Your task to perform on an android device: change the clock display to show seconds Image 0: 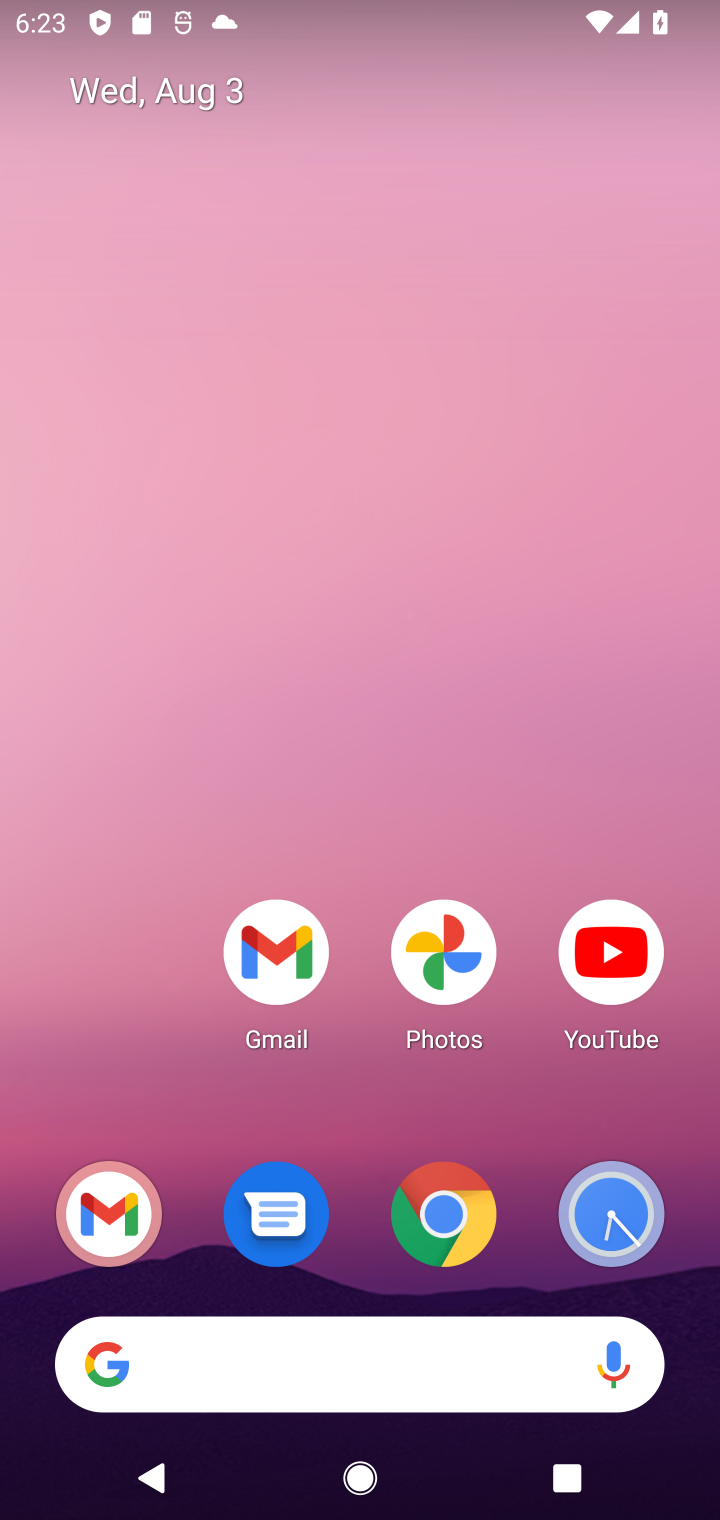
Step 0: drag from (86, 964) to (183, 95)
Your task to perform on an android device: change the clock display to show seconds Image 1: 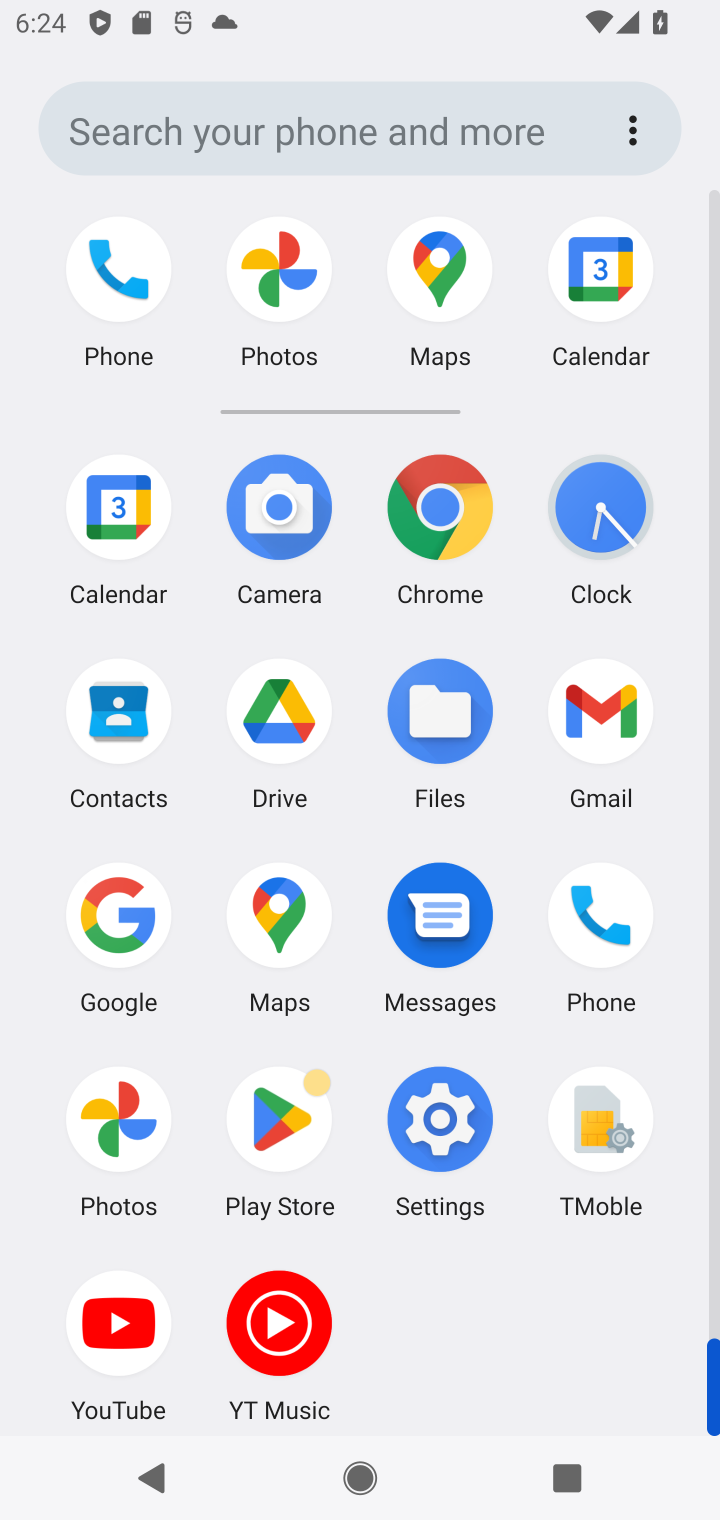
Step 1: click (478, 1128)
Your task to perform on an android device: change the clock display to show seconds Image 2: 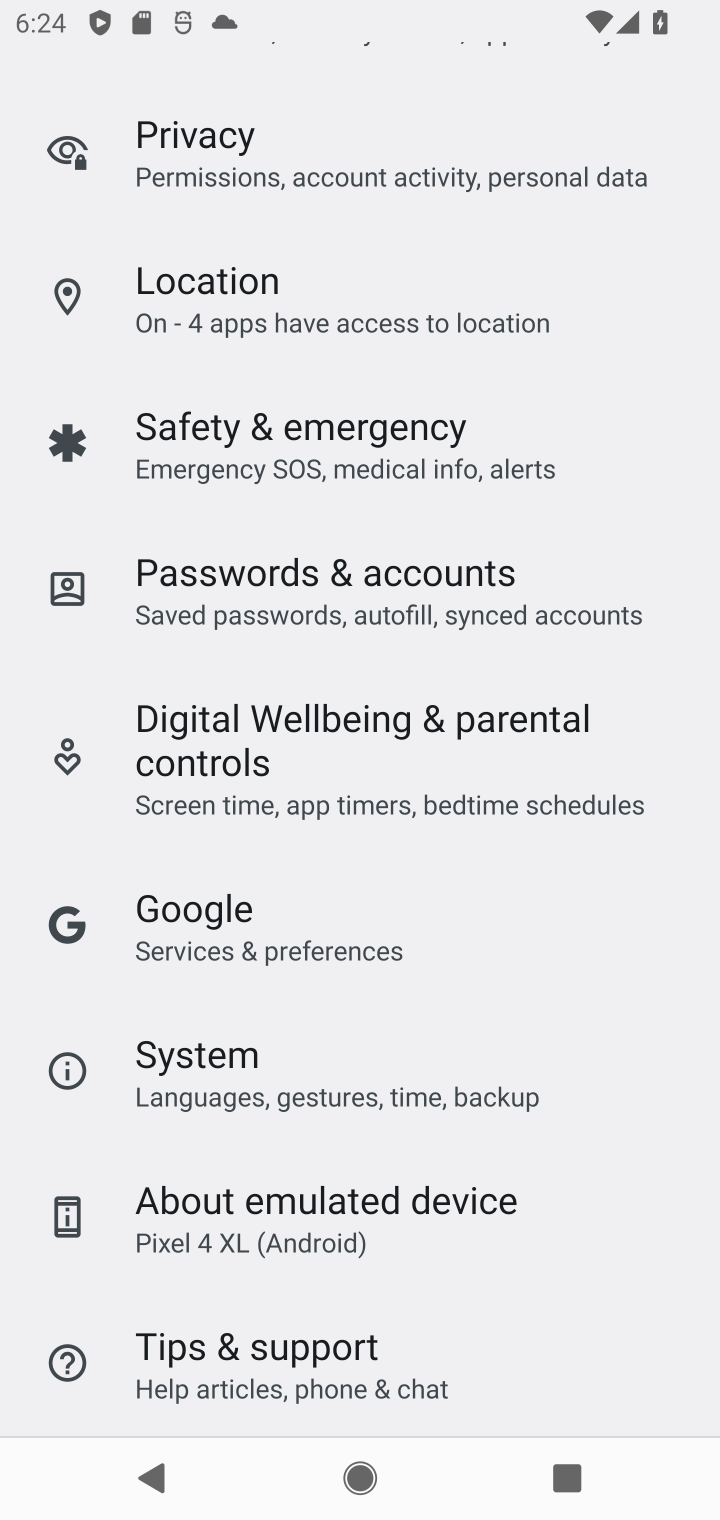
Step 2: drag from (359, 509) to (318, 1368)
Your task to perform on an android device: change the clock display to show seconds Image 3: 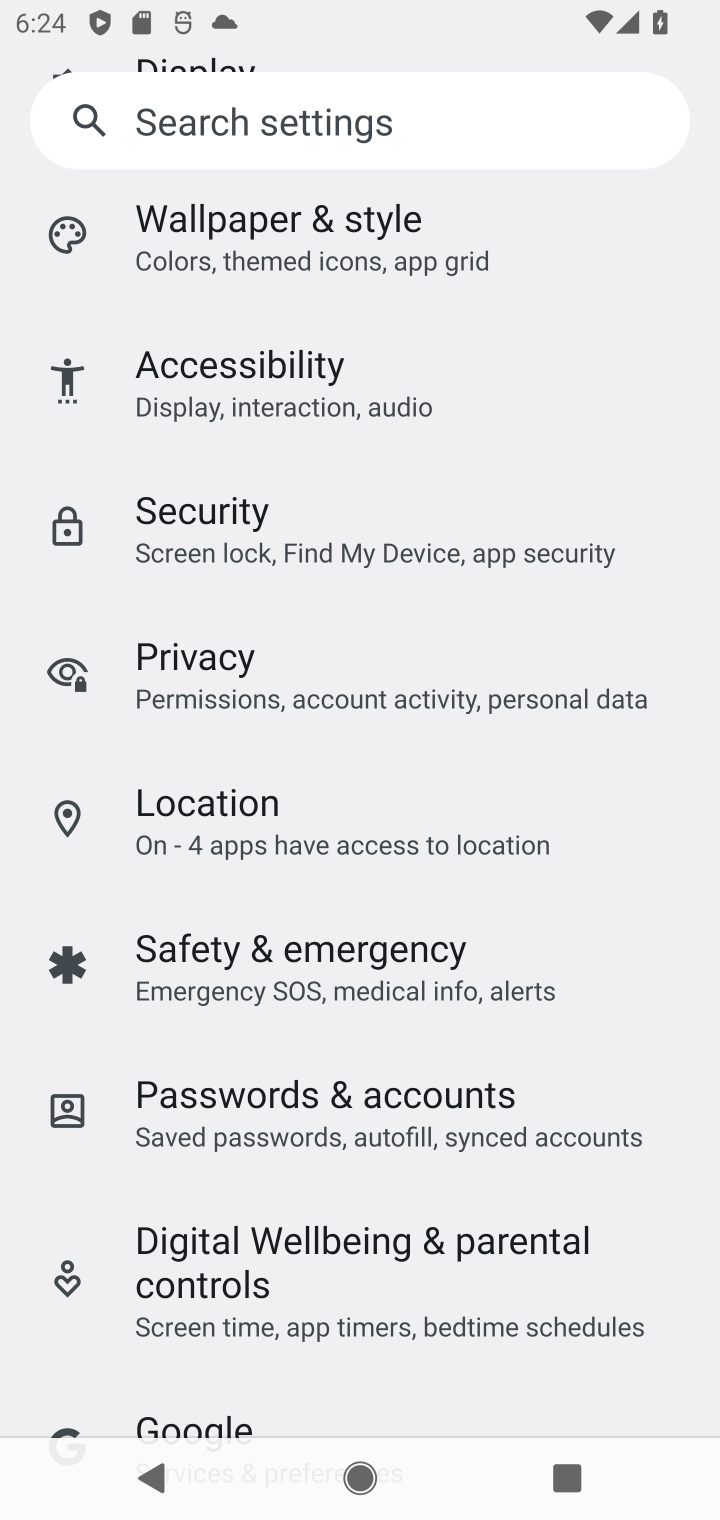
Step 3: press home button
Your task to perform on an android device: change the clock display to show seconds Image 4: 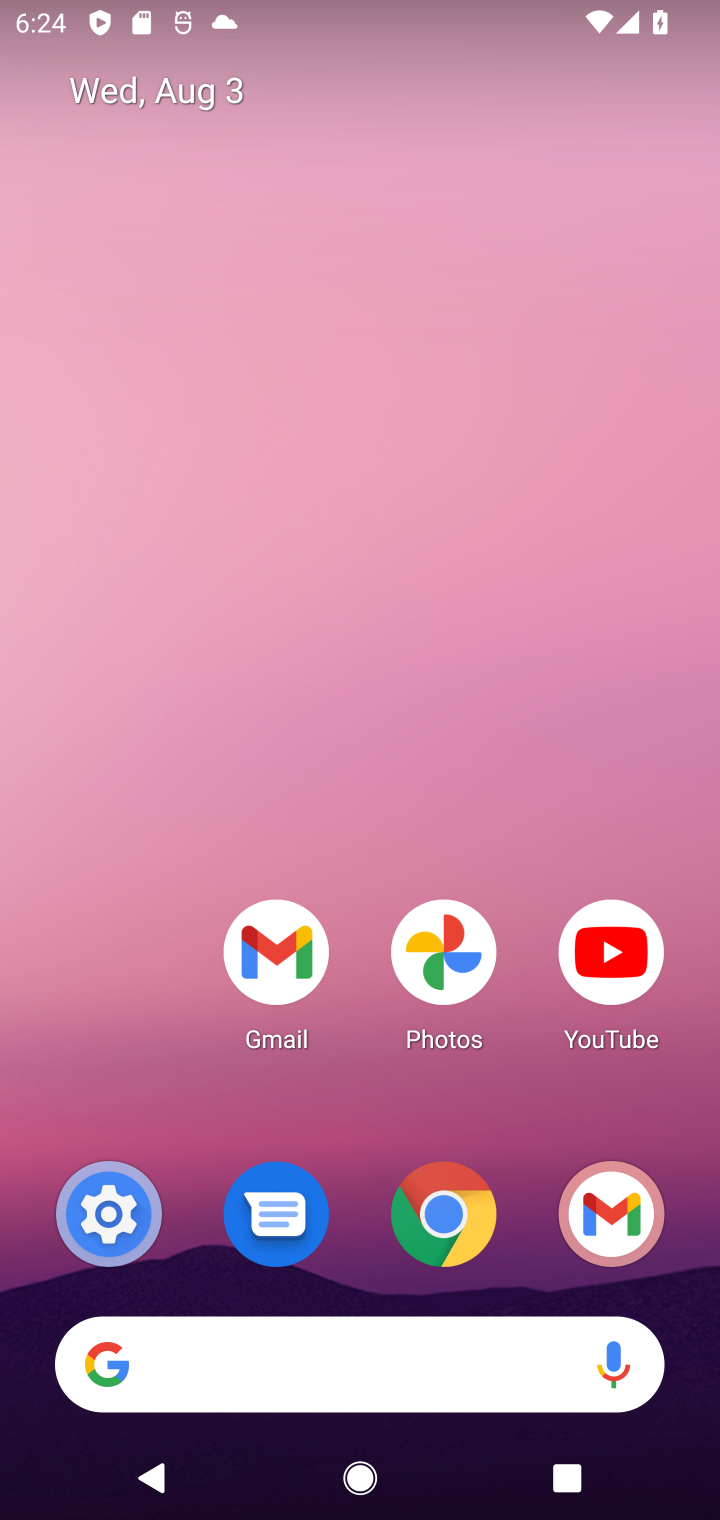
Step 4: drag from (5, 1006) to (258, 42)
Your task to perform on an android device: change the clock display to show seconds Image 5: 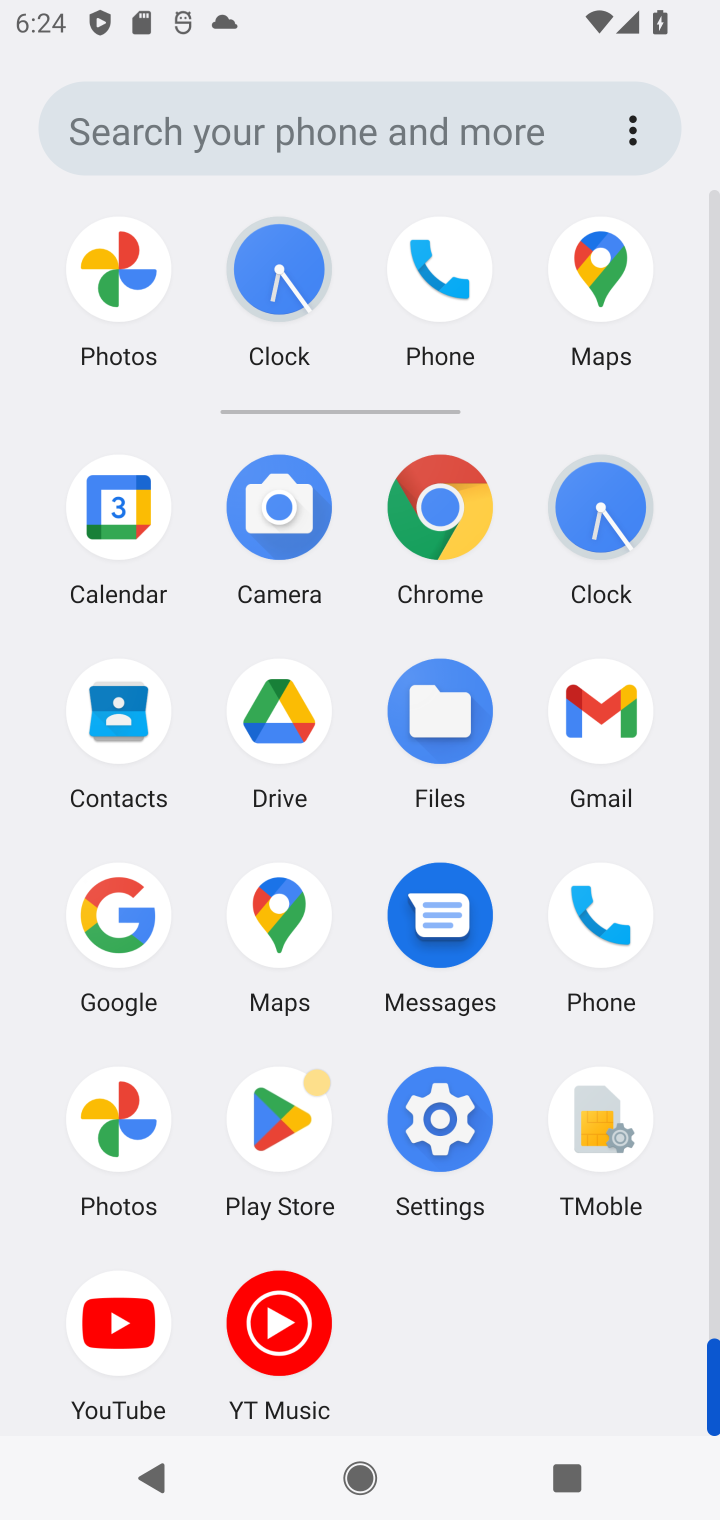
Step 5: click (603, 531)
Your task to perform on an android device: change the clock display to show seconds Image 6: 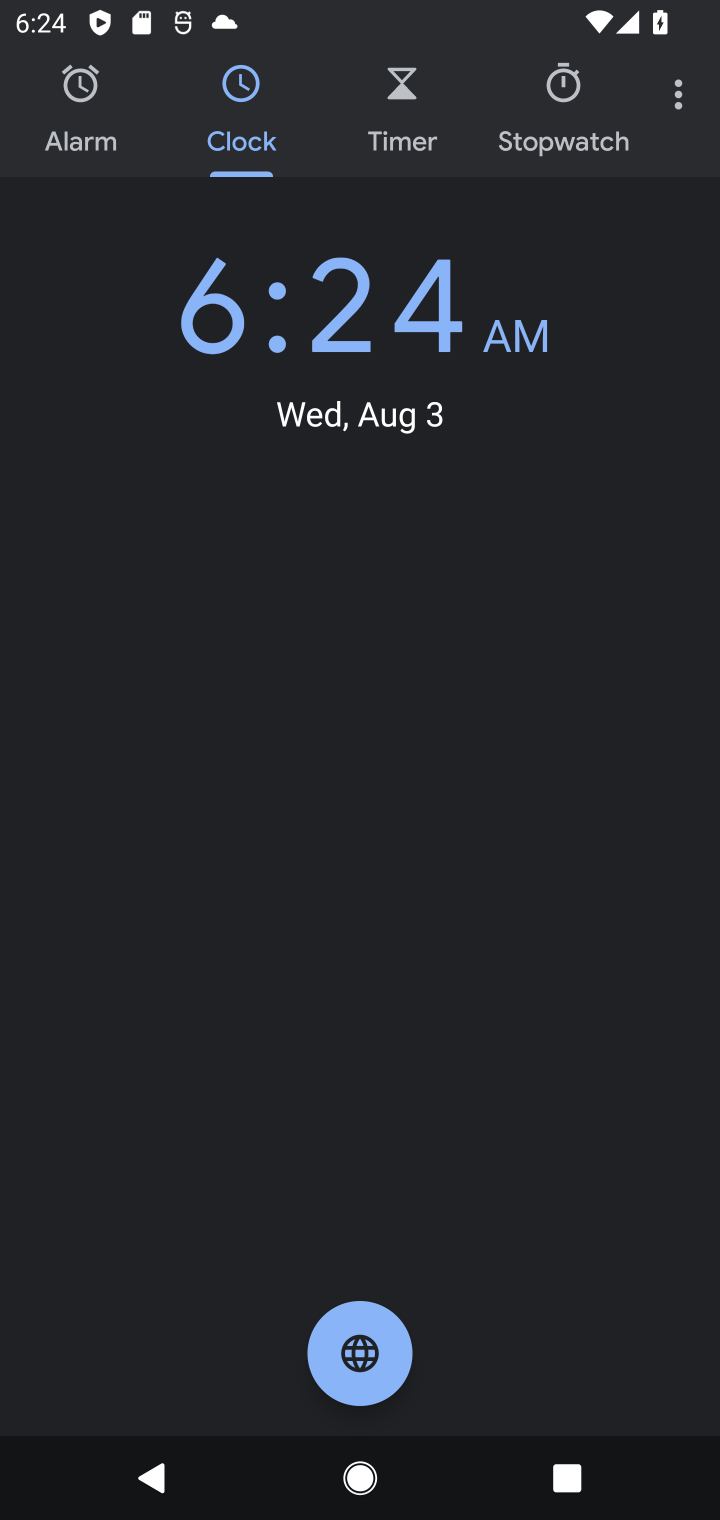
Step 6: click (696, 113)
Your task to perform on an android device: change the clock display to show seconds Image 7: 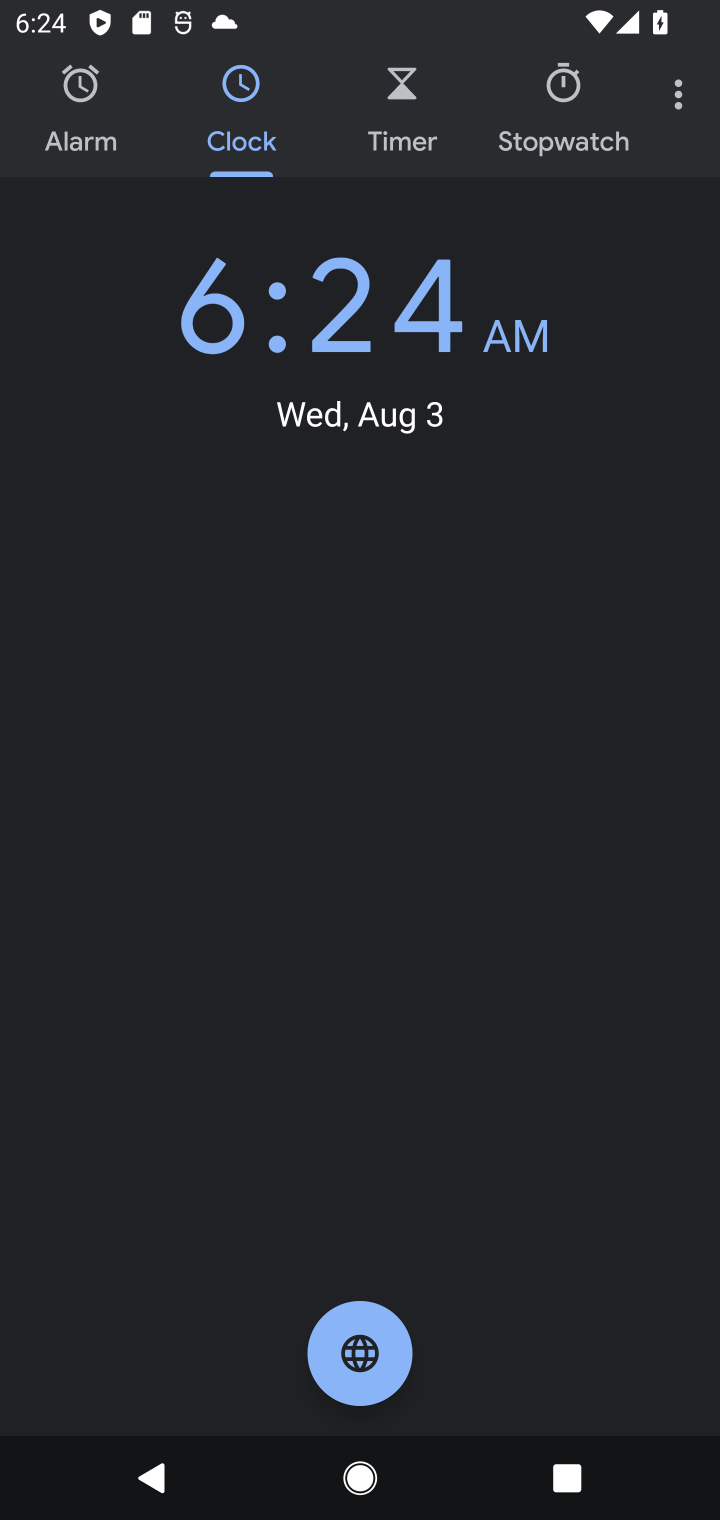
Step 7: click (682, 90)
Your task to perform on an android device: change the clock display to show seconds Image 8: 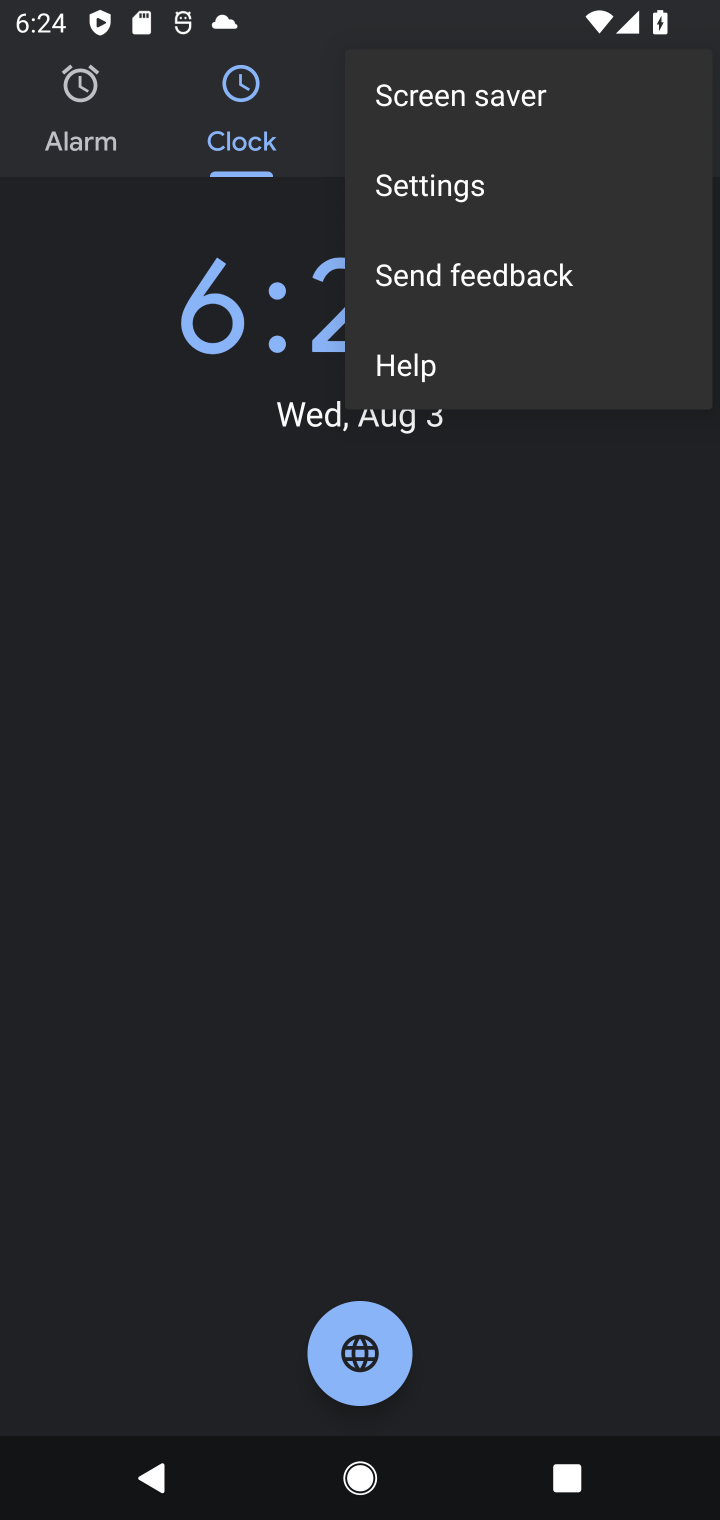
Step 8: click (481, 177)
Your task to perform on an android device: change the clock display to show seconds Image 9: 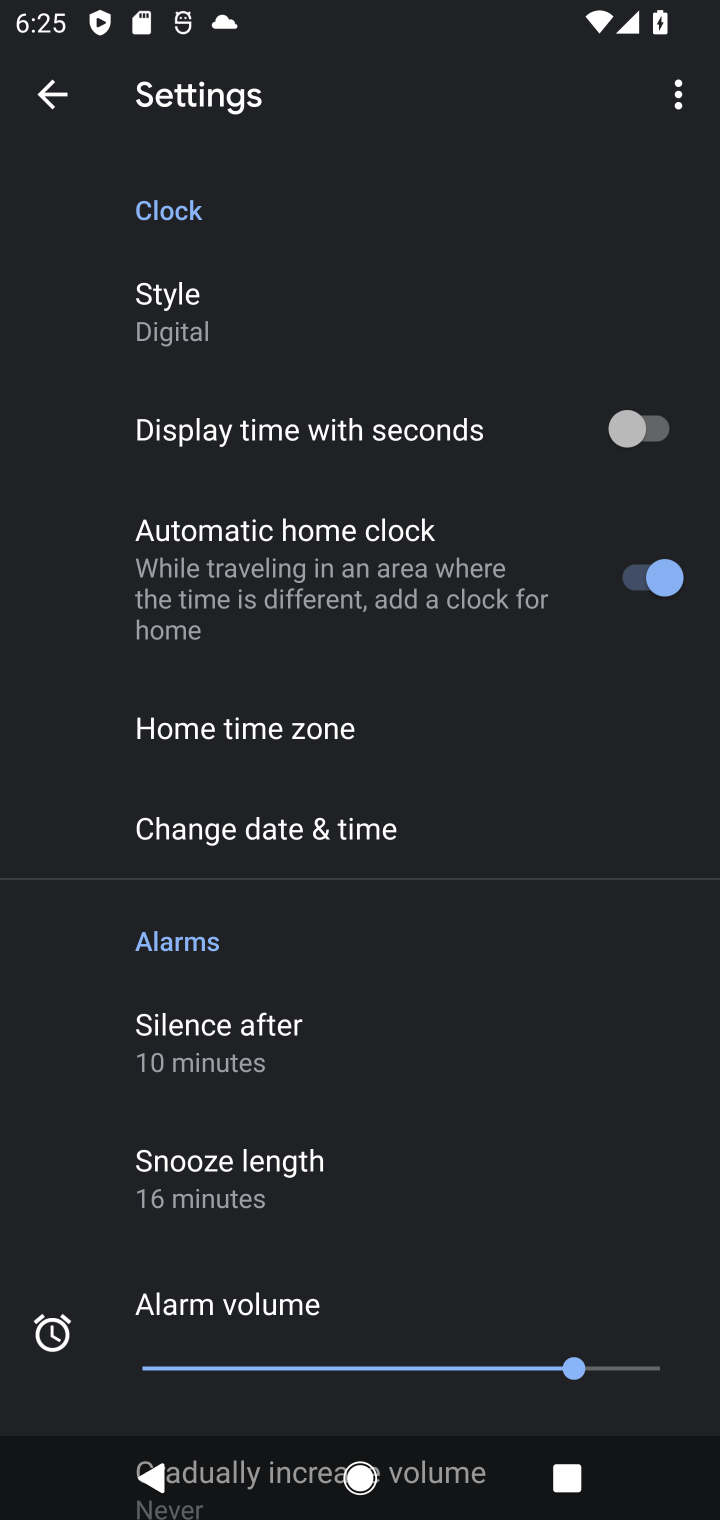
Step 9: click (628, 433)
Your task to perform on an android device: change the clock display to show seconds Image 10: 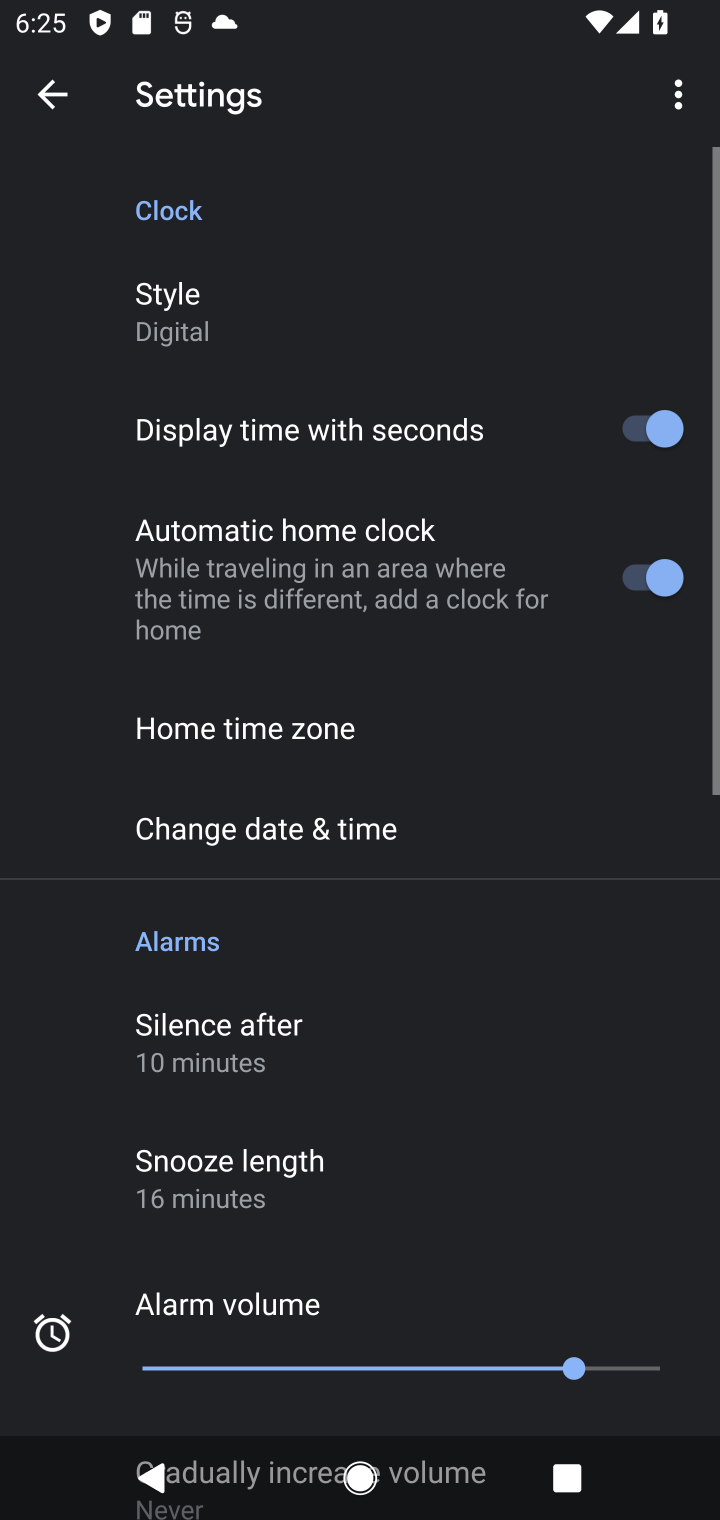
Step 10: task complete